Your task to perform on an android device: Go to CNN.com Image 0: 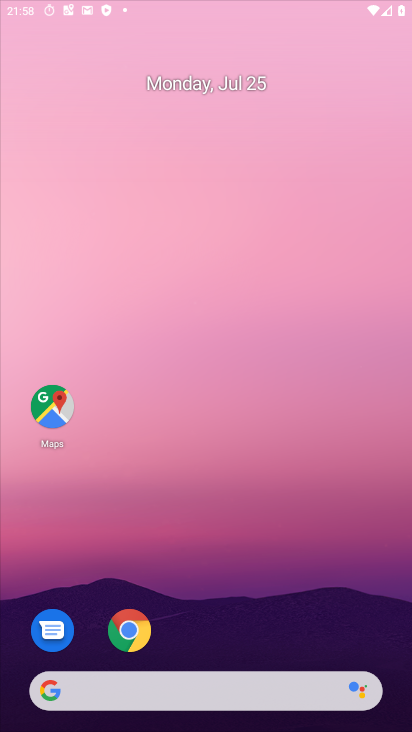
Step 0: press home button
Your task to perform on an android device: Go to CNN.com Image 1: 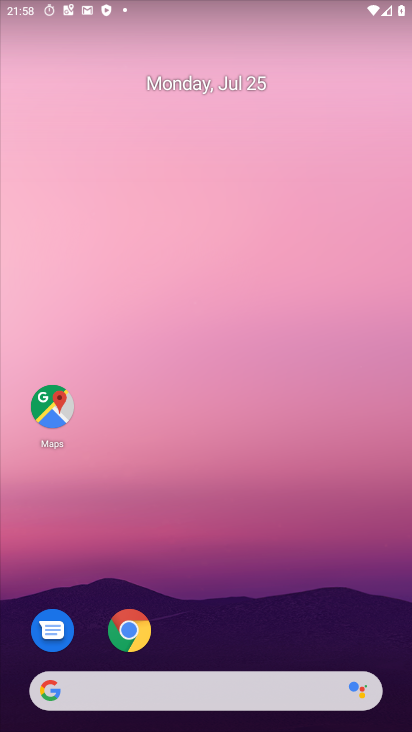
Step 1: click (54, 700)
Your task to perform on an android device: Go to CNN.com Image 2: 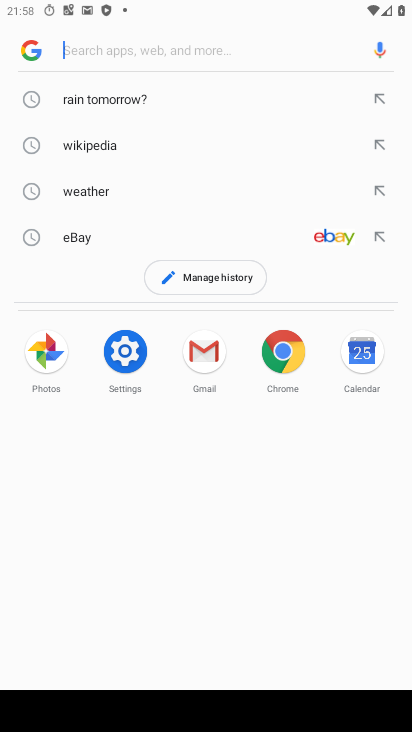
Step 2: type " CNN.com"
Your task to perform on an android device: Go to CNN.com Image 3: 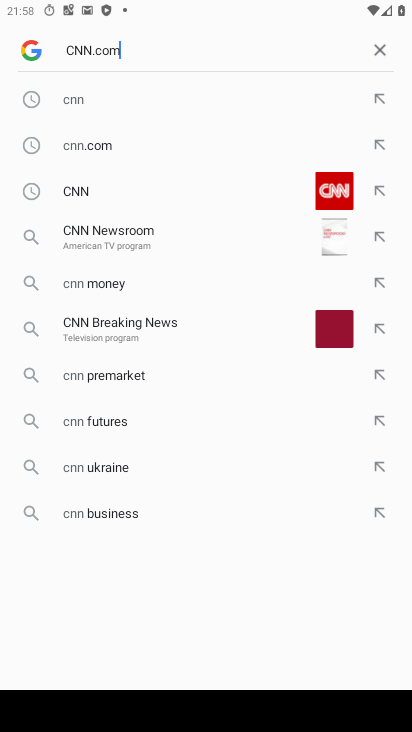
Step 3: press enter
Your task to perform on an android device: Go to CNN.com Image 4: 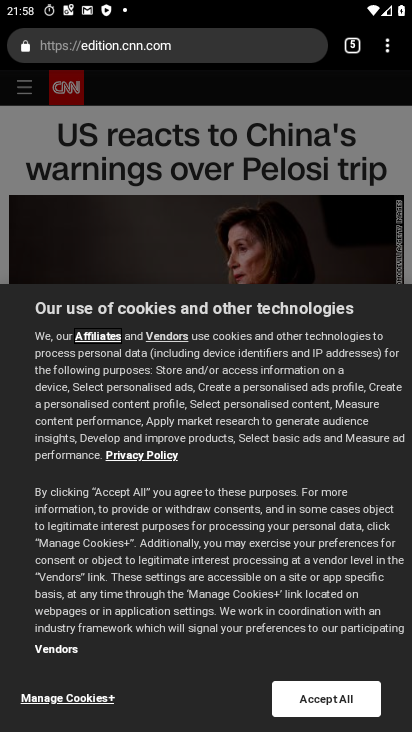
Step 4: click (333, 706)
Your task to perform on an android device: Go to CNN.com Image 5: 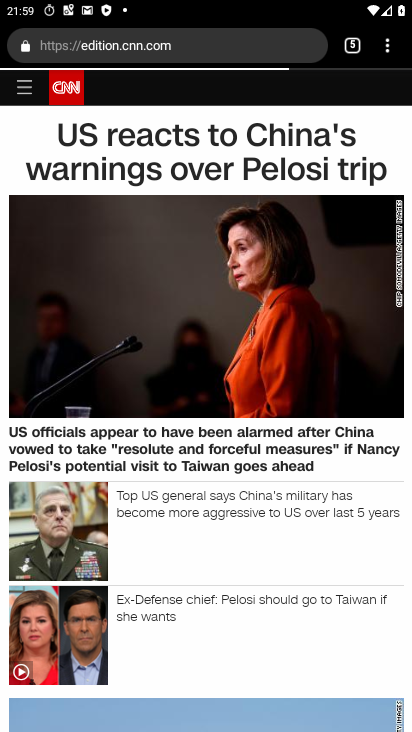
Step 5: task complete